Your task to perform on an android device: toggle sleep mode Image 0: 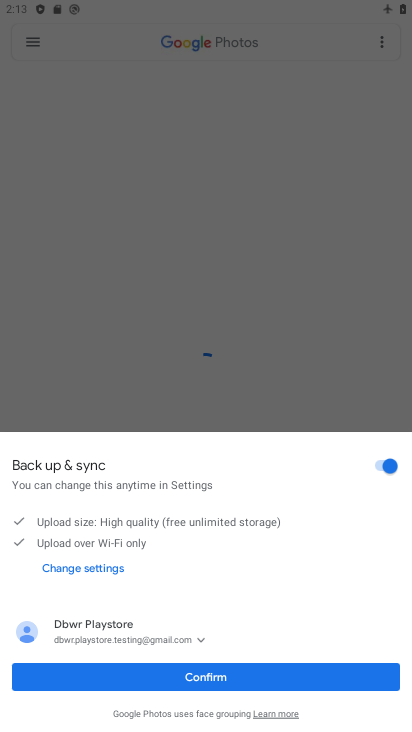
Step 0: press home button
Your task to perform on an android device: toggle sleep mode Image 1: 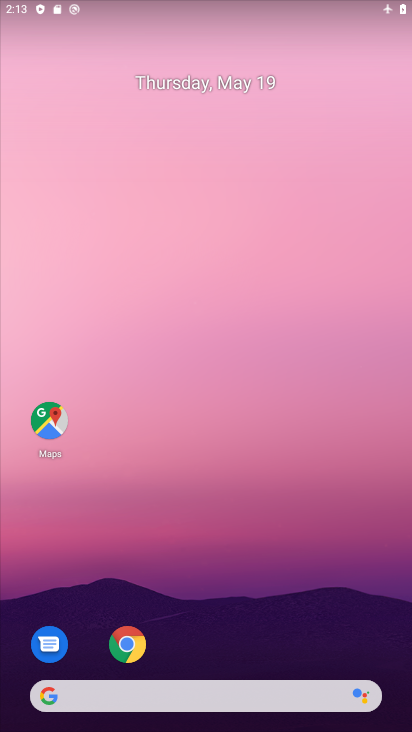
Step 1: drag from (251, 446) to (242, 276)
Your task to perform on an android device: toggle sleep mode Image 2: 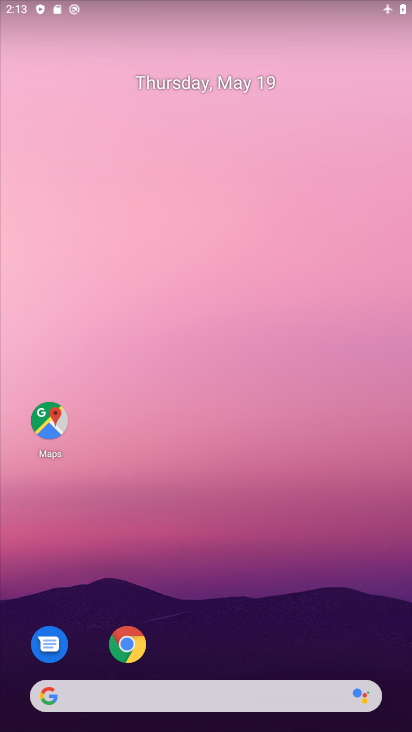
Step 2: drag from (285, 650) to (300, 100)
Your task to perform on an android device: toggle sleep mode Image 3: 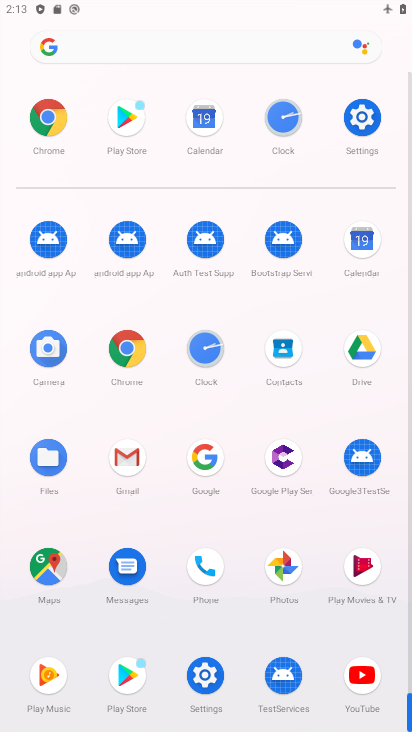
Step 3: click (370, 110)
Your task to perform on an android device: toggle sleep mode Image 4: 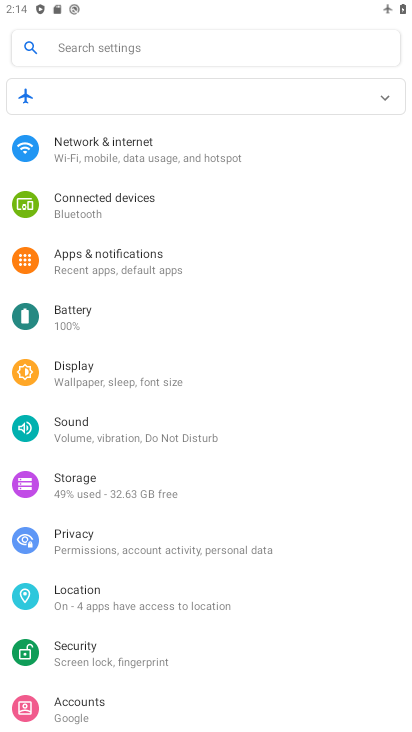
Step 4: task complete